Your task to perform on an android device: turn on javascript in the chrome app Image 0: 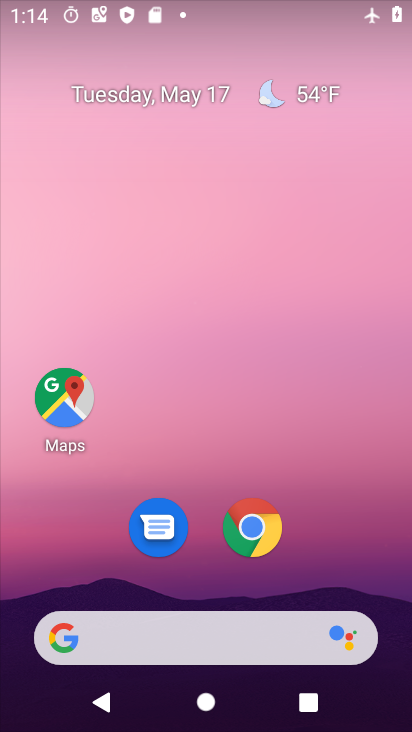
Step 0: drag from (245, 656) to (365, 219)
Your task to perform on an android device: turn on javascript in the chrome app Image 1: 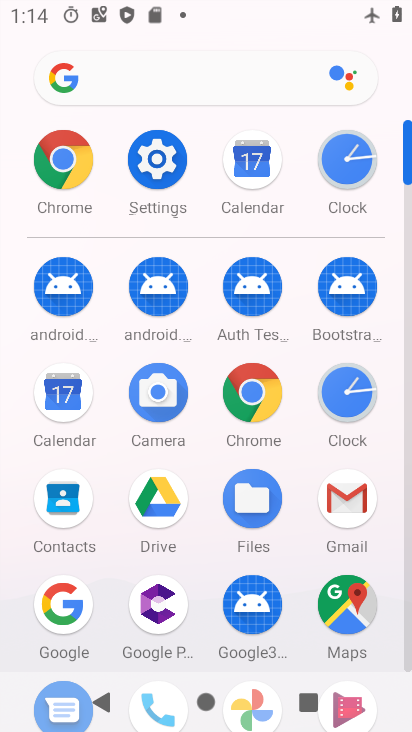
Step 1: click (251, 404)
Your task to perform on an android device: turn on javascript in the chrome app Image 2: 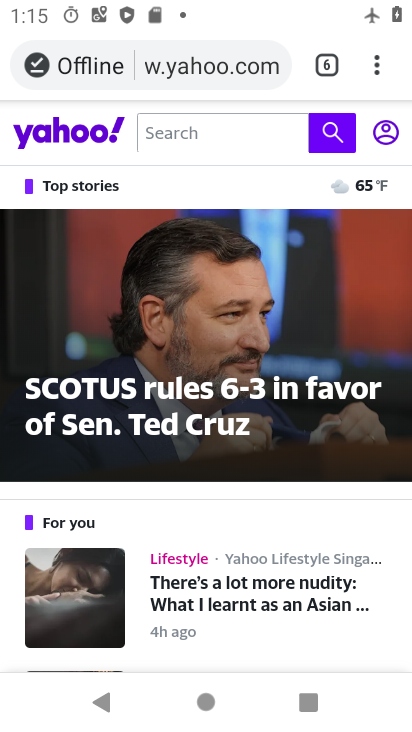
Step 2: click (375, 87)
Your task to perform on an android device: turn on javascript in the chrome app Image 3: 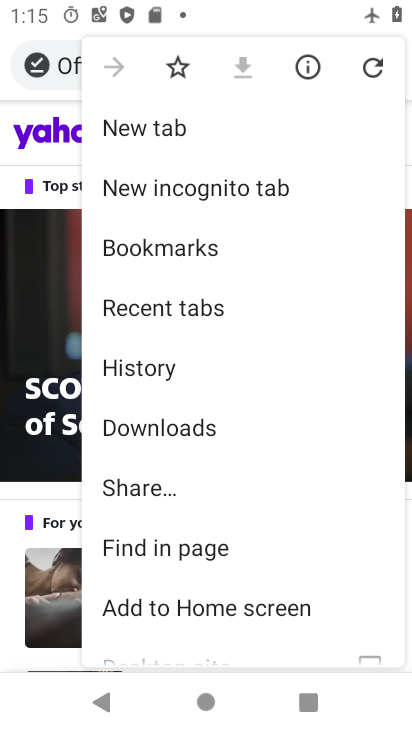
Step 3: drag from (254, 408) to (273, 108)
Your task to perform on an android device: turn on javascript in the chrome app Image 4: 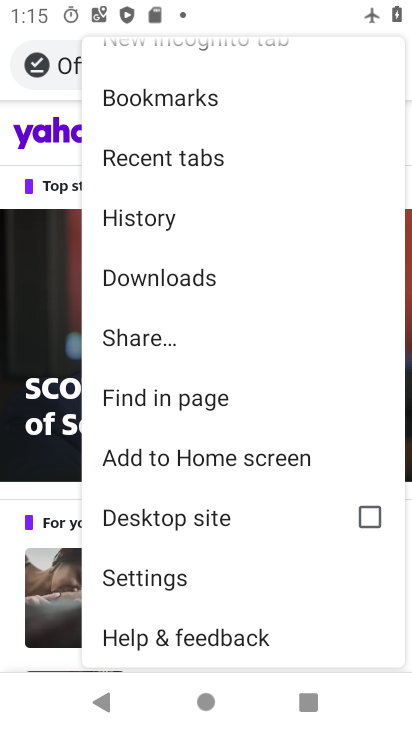
Step 4: click (151, 560)
Your task to perform on an android device: turn on javascript in the chrome app Image 5: 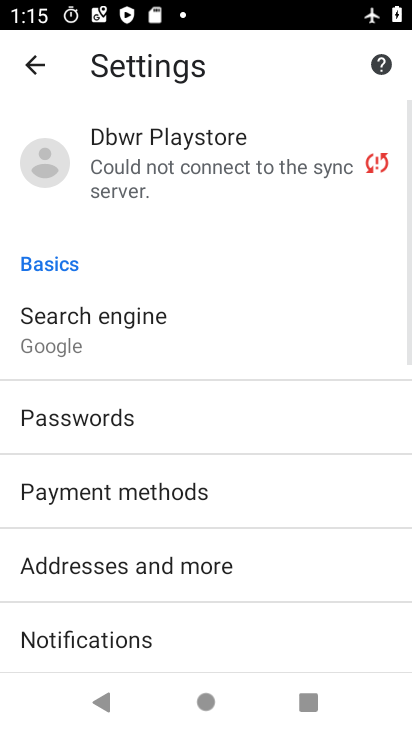
Step 5: drag from (151, 560) to (130, 325)
Your task to perform on an android device: turn on javascript in the chrome app Image 6: 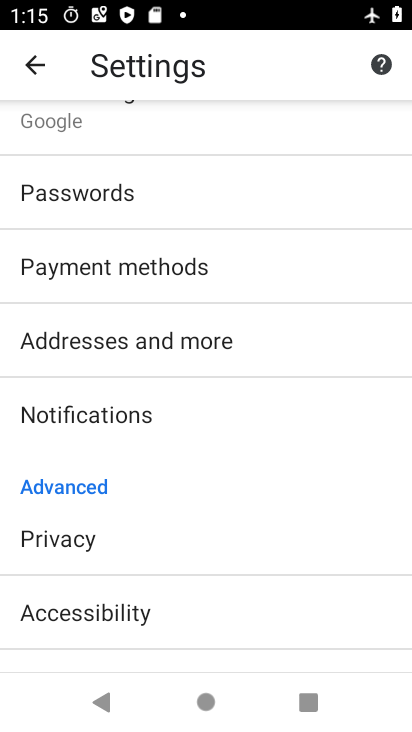
Step 6: drag from (162, 562) to (175, 345)
Your task to perform on an android device: turn on javascript in the chrome app Image 7: 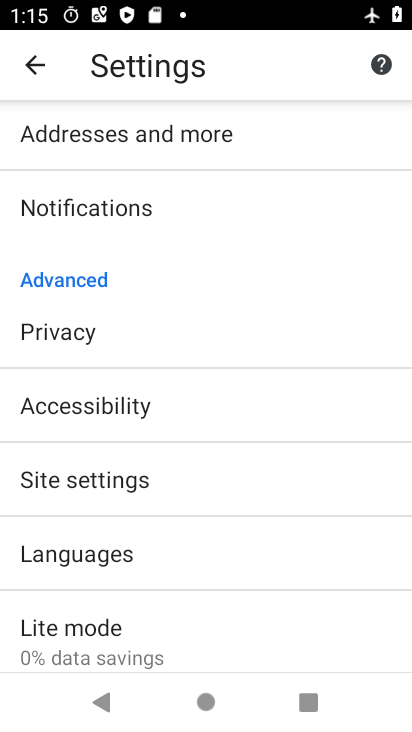
Step 7: drag from (160, 499) to (189, 363)
Your task to perform on an android device: turn on javascript in the chrome app Image 8: 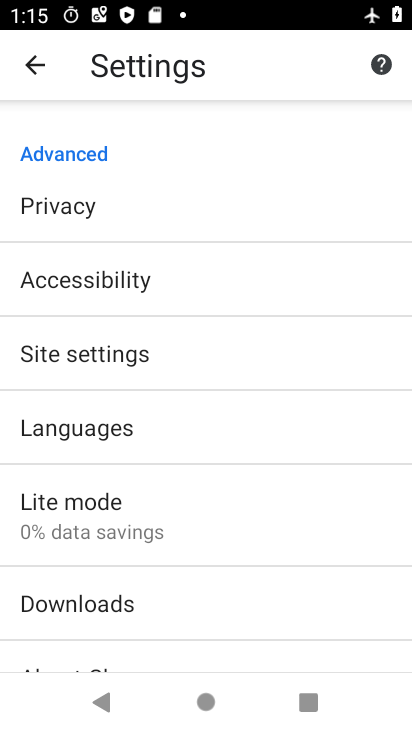
Step 8: click (119, 363)
Your task to perform on an android device: turn on javascript in the chrome app Image 9: 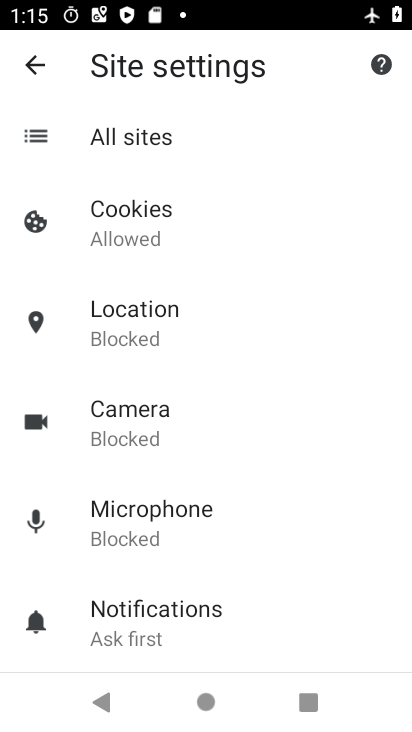
Step 9: drag from (221, 452) to (237, 300)
Your task to perform on an android device: turn on javascript in the chrome app Image 10: 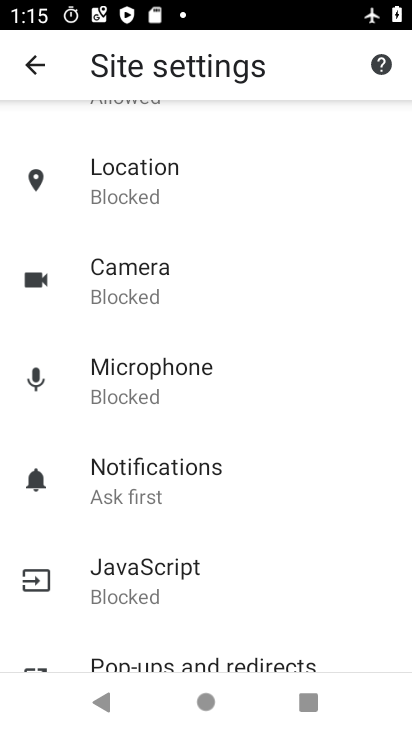
Step 10: click (161, 556)
Your task to perform on an android device: turn on javascript in the chrome app Image 11: 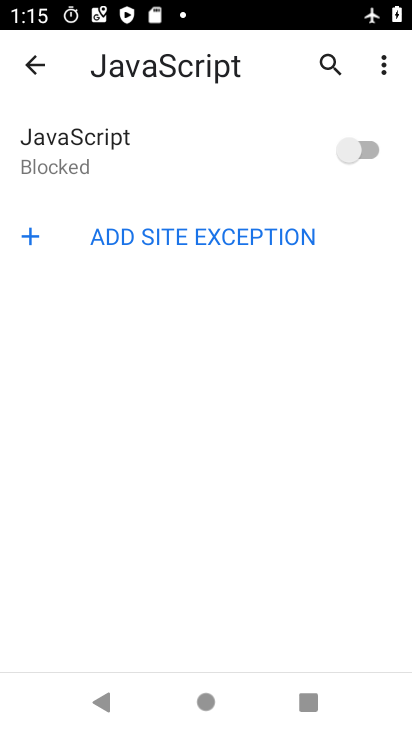
Step 11: click (337, 145)
Your task to perform on an android device: turn on javascript in the chrome app Image 12: 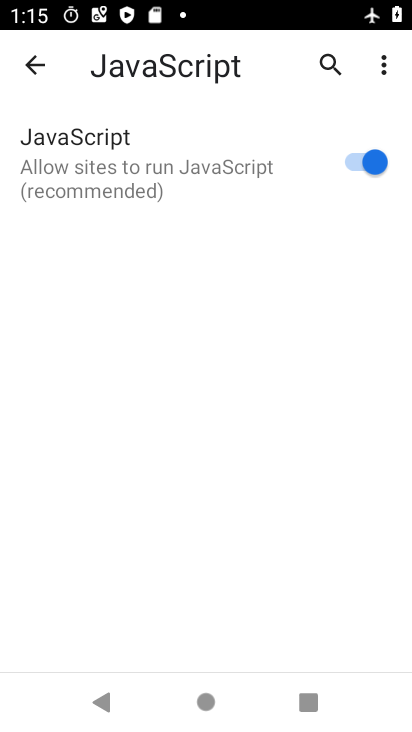
Step 12: task complete